Your task to perform on an android device: allow notifications from all sites in the chrome app Image 0: 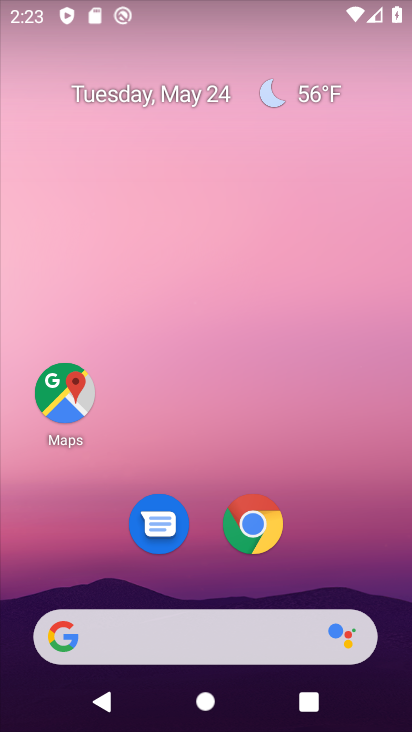
Step 0: click (262, 525)
Your task to perform on an android device: allow notifications from all sites in the chrome app Image 1: 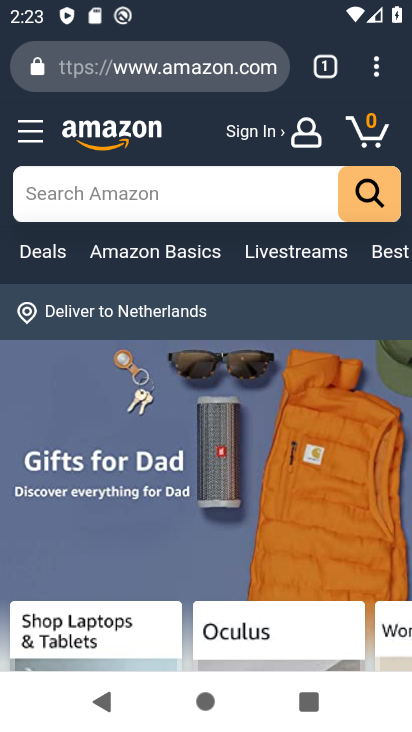
Step 1: click (377, 64)
Your task to perform on an android device: allow notifications from all sites in the chrome app Image 2: 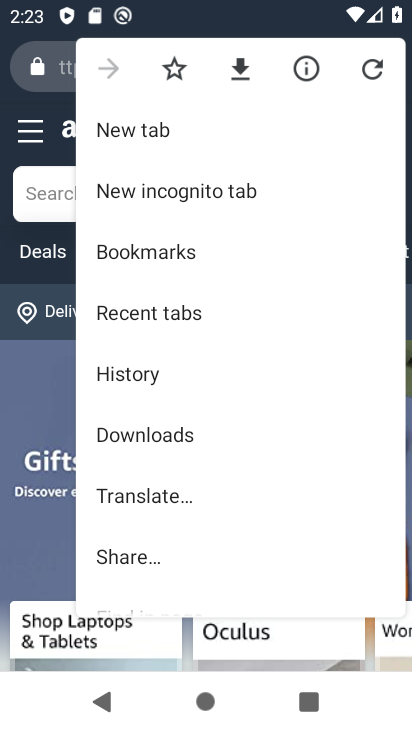
Step 2: drag from (210, 514) to (214, 222)
Your task to perform on an android device: allow notifications from all sites in the chrome app Image 3: 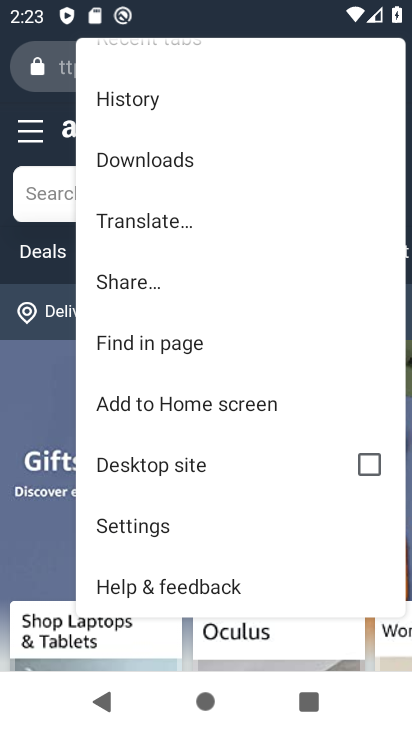
Step 3: click (167, 514)
Your task to perform on an android device: allow notifications from all sites in the chrome app Image 4: 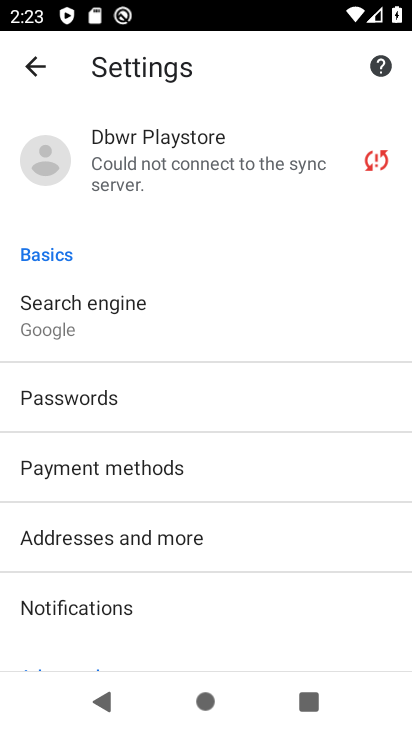
Step 4: drag from (251, 506) to (256, 149)
Your task to perform on an android device: allow notifications from all sites in the chrome app Image 5: 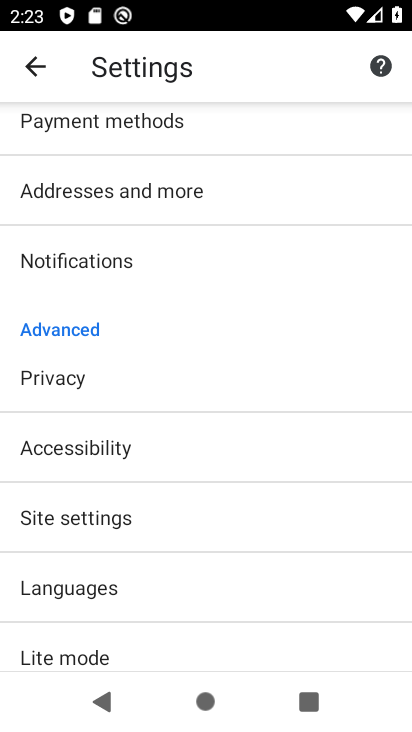
Step 5: click (220, 256)
Your task to perform on an android device: allow notifications from all sites in the chrome app Image 6: 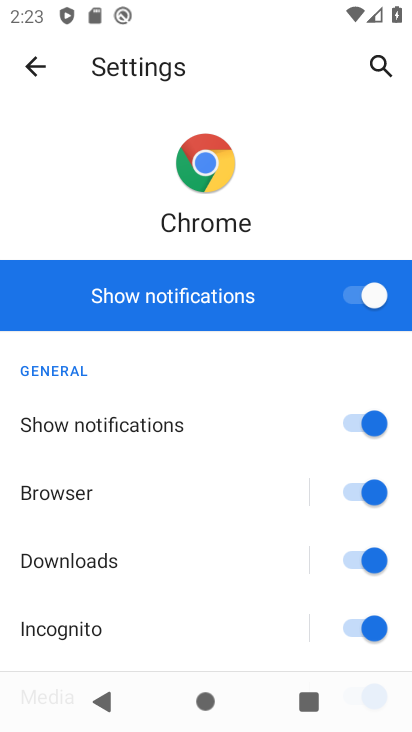
Step 6: task complete